Your task to perform on an android device: toggle sleep mode Image 0: 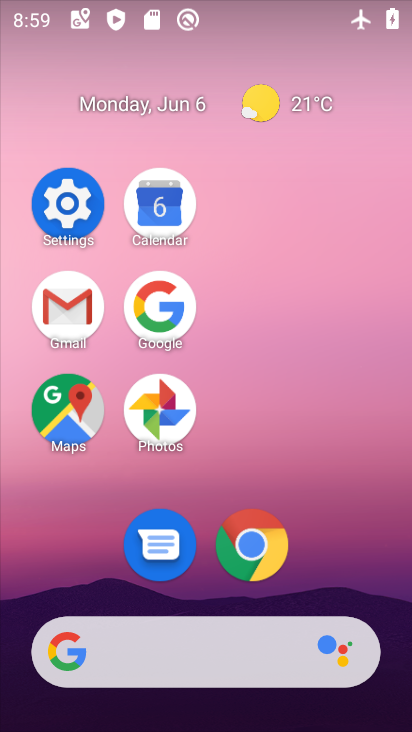
Step 0: click (78, 195)
Your task to perform on an android device: toggle sleep mode Image 1: 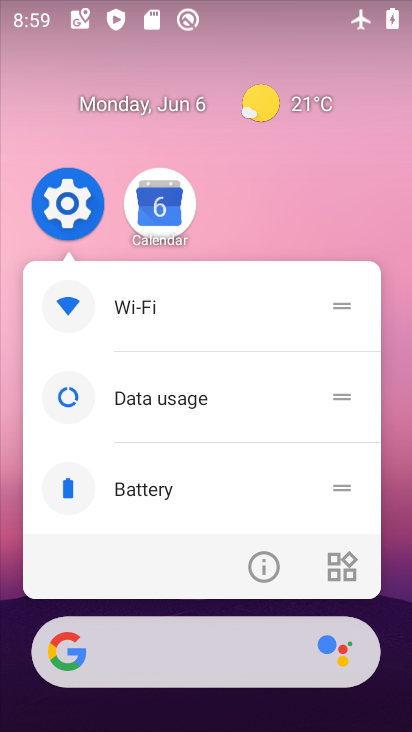
Step 1: click (59, 225)
Your task to perform on an android device: toggle sleep mode Image 2: 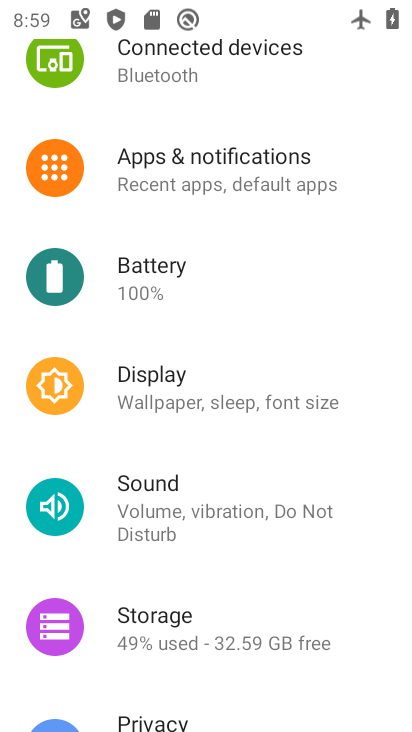
Step 2: drag from (311, 145) to (320, 513)
Your task to perform on an android device: toggle sleep mode Image 3: 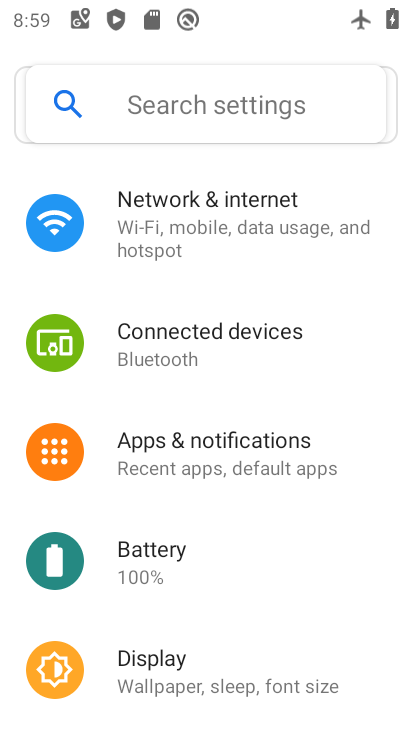
Step 3: click (235, 668)
Your task to perform on an android device: toggle sleep mode Image 4: 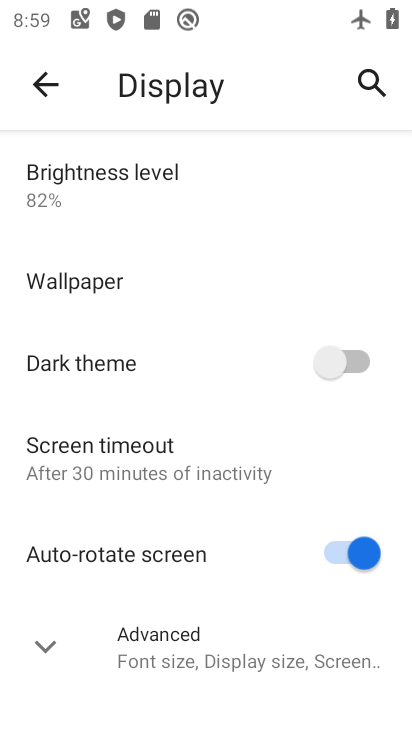
Step 4: click (161, 434)
Your task to perform on an android device: toggle sleep mode Image 5: 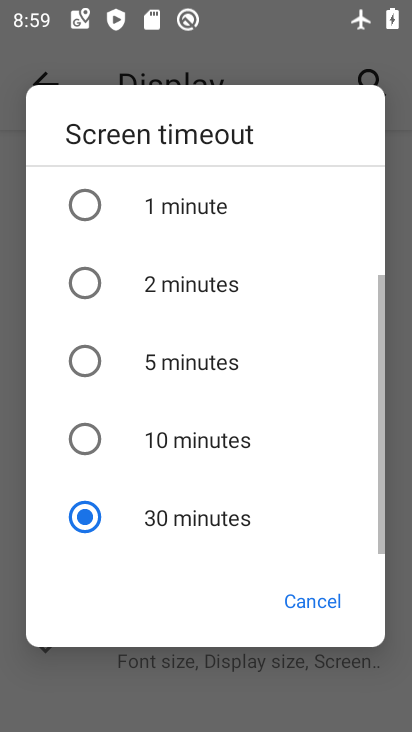
Step 5: click (183, 339)
Your task to perform on an android device: toggle sleep mode Image 6: 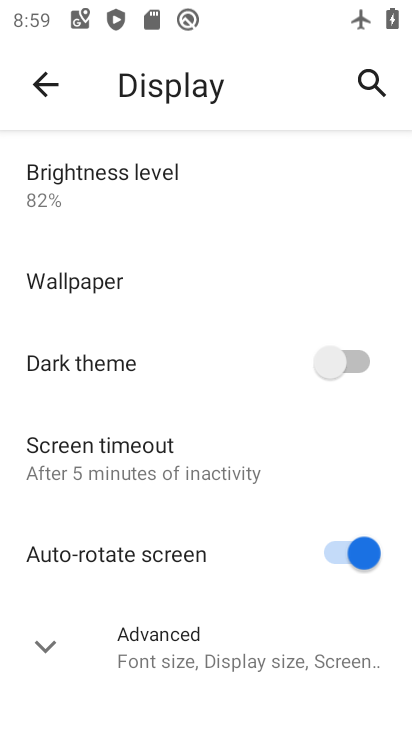
Step 6: task complete